Your task to perform on an android device: check battery use Image 0: 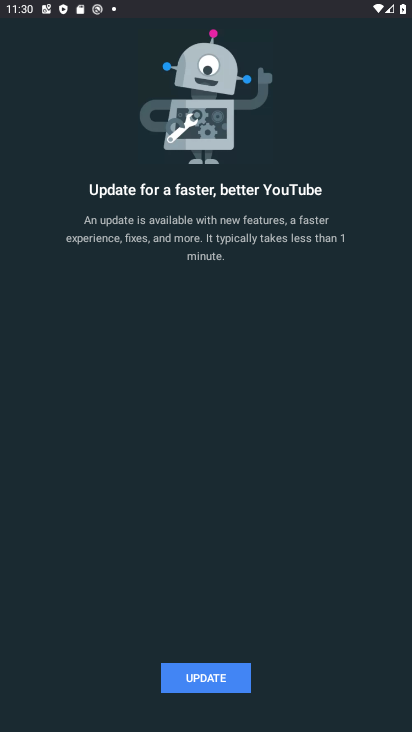
Step 0: press home button
Your task to perform on an android device: check battery use Image 1: 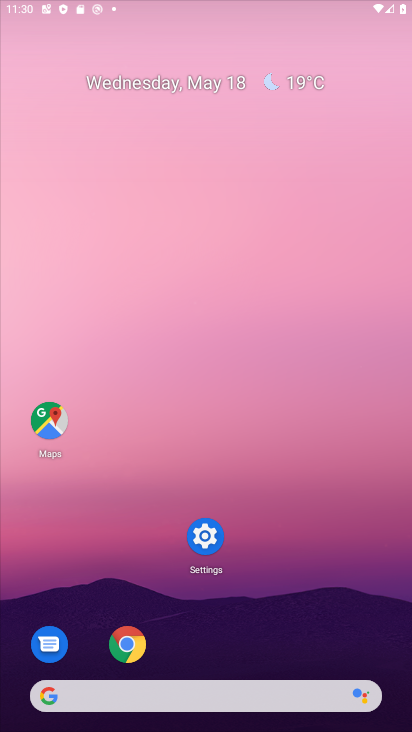
Step 1: drag from (331, 557) to (275, 181)
Your task to perform on an android device: check battery use Image 2: 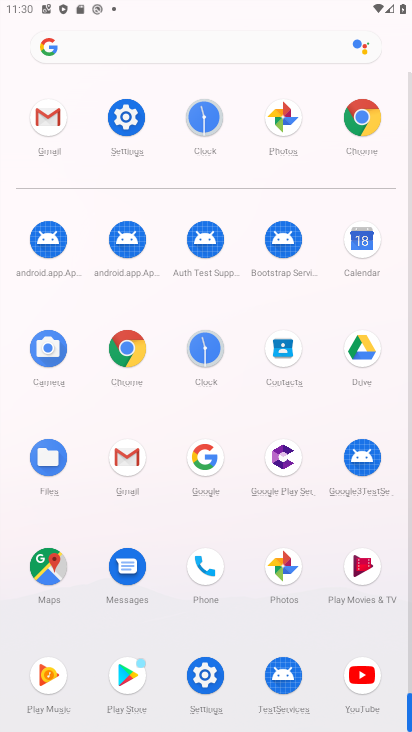
Step 2: click (197, 666)
Your task to perform on an android device: check battery use Image 3: 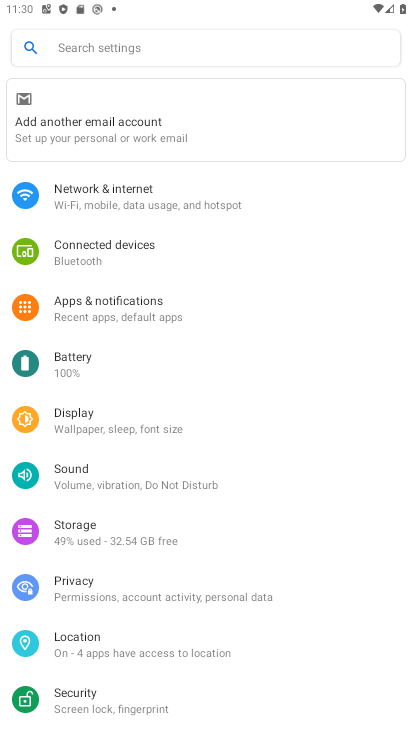
Step 3: drag from (167, 614) to (250, 334)
Your task to perform on an android device: check battery use Image 4: 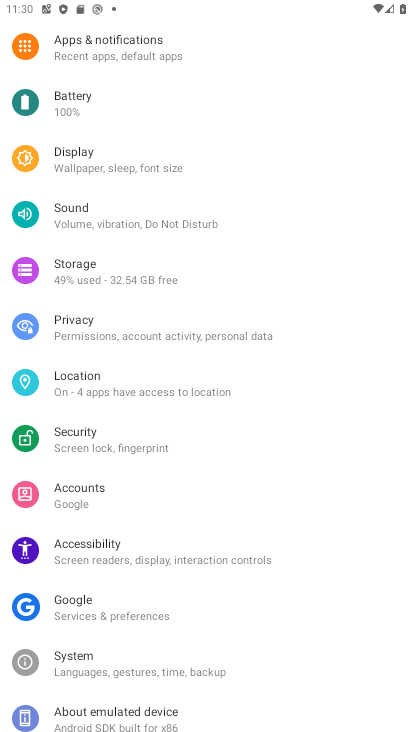
Step 4: drag from (127, 622) to (216, 316)
Your task to perform on an android device: check battery use Image 5: 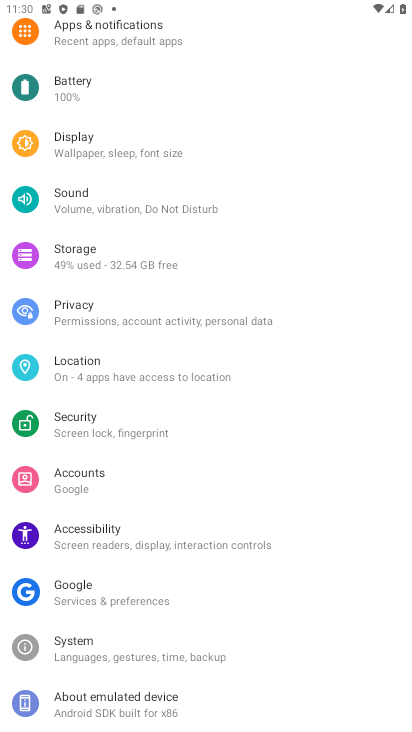
Step 5: click (72, 76)
Your task to perform on an android device: check battery use Image 6: 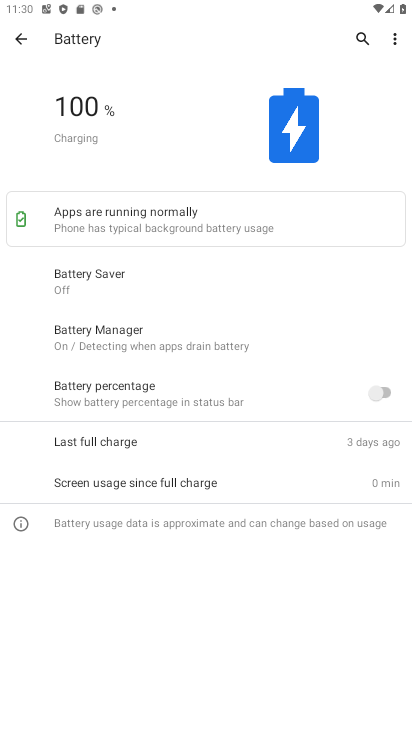
Step 6: task complete